Your task to perform on an android device: Open Yahoo.com Image 0: 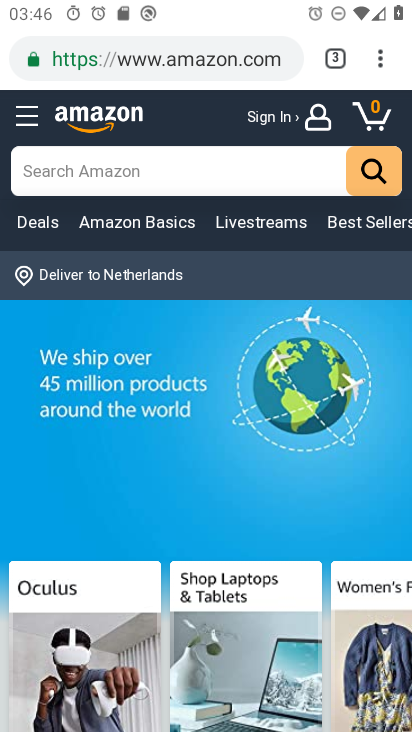
Step 0: press home button
Your task to perform on an android device: Open Yahoo.com Image 1: 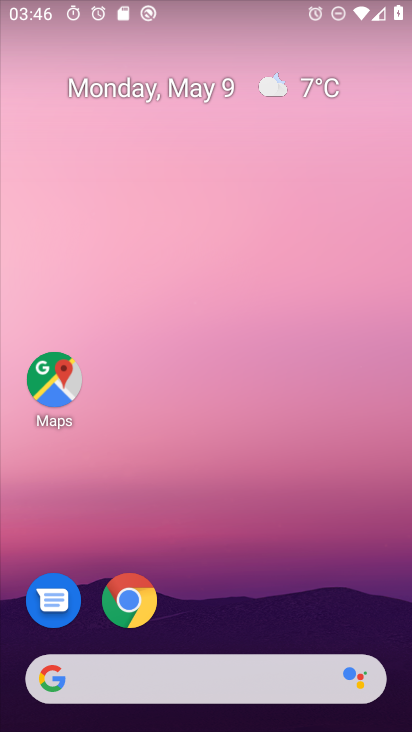
Step 1: click (131, 597)
Your task to perform on an android device: Open Yahoo.com Image 2: 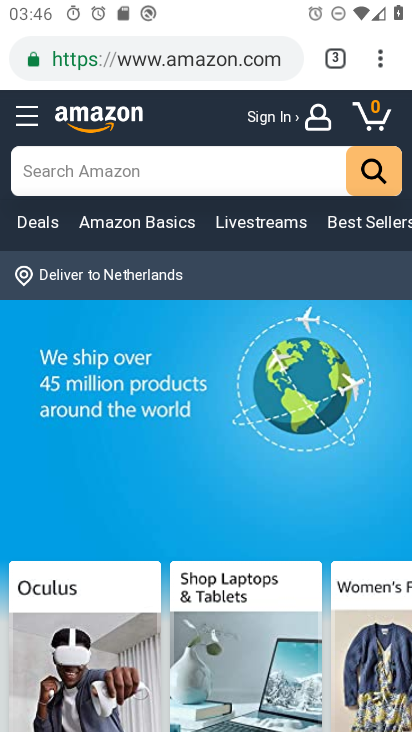
Step 2: click (204, 60)
Your task to perform on an android device: Open Yahoo.com Image 3: 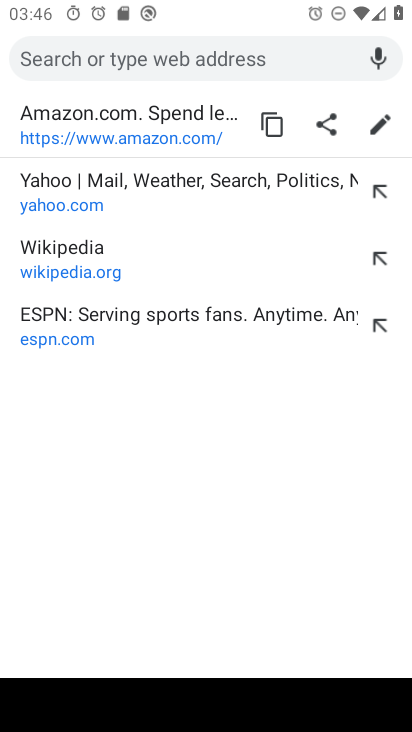
Step 3: type "yahoo.com"
Your task to perform on an android device: Open Yahoo.com Image 4: 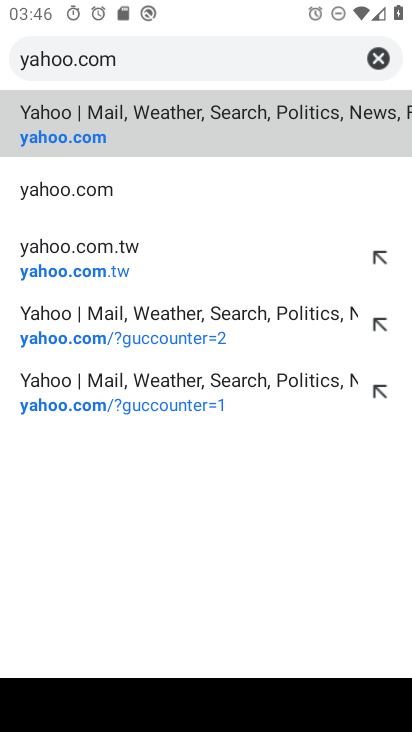
Step 4: click (331, 106)
Your task to perform on an android device: Open Yahoo.com Image 5: 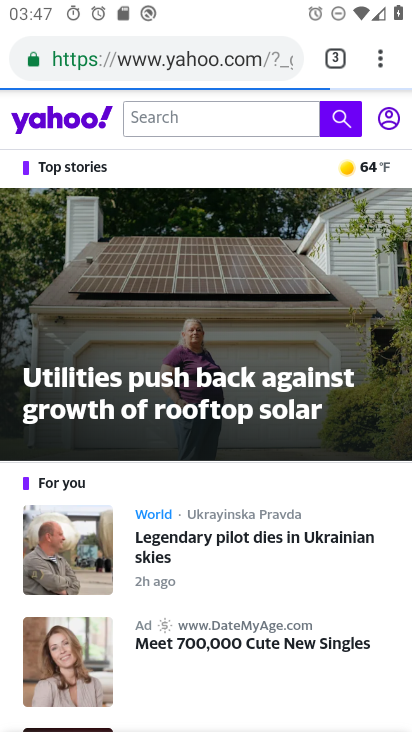
Step 5: task complete